Your task to perform on an android device: Go to Reddit.com Image 0: 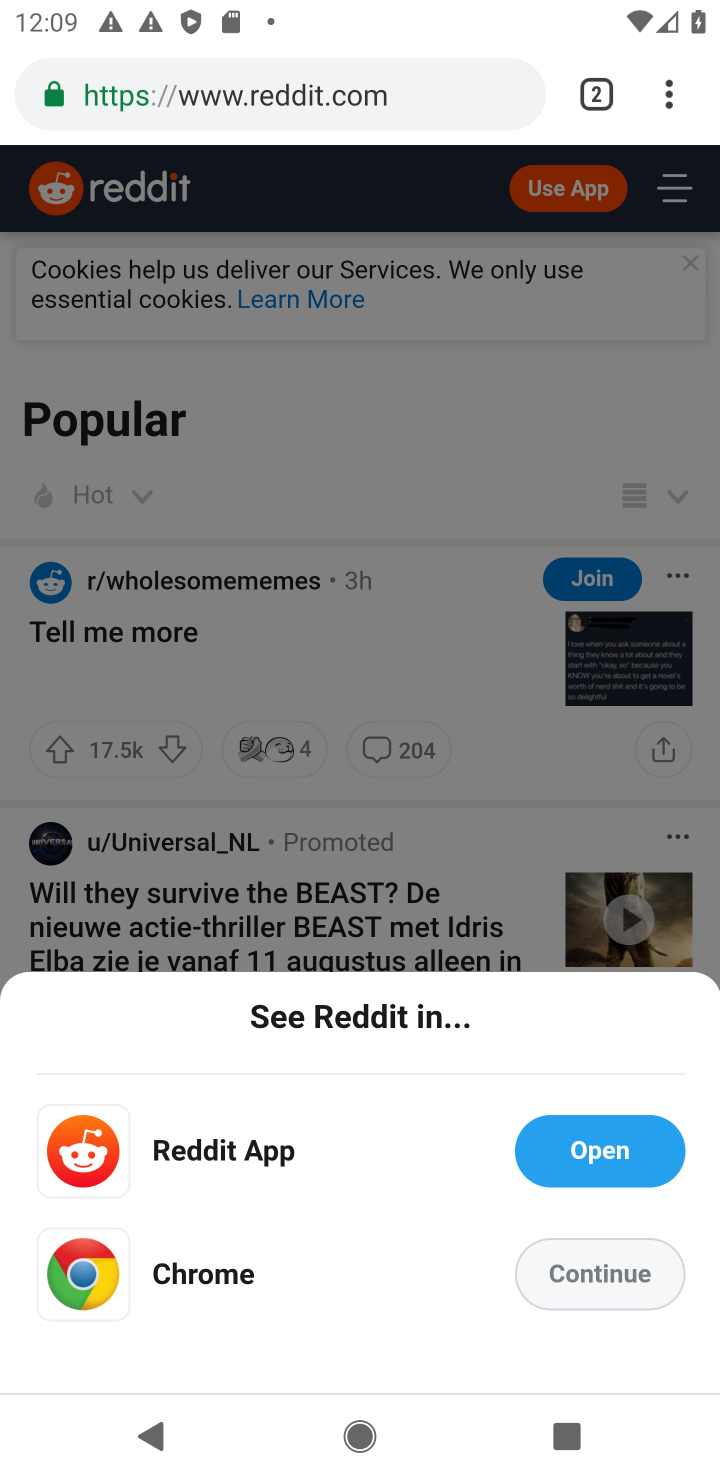
Step 0: task complete